Your task to perform on an android device: Turn off the flashlight Image 0: 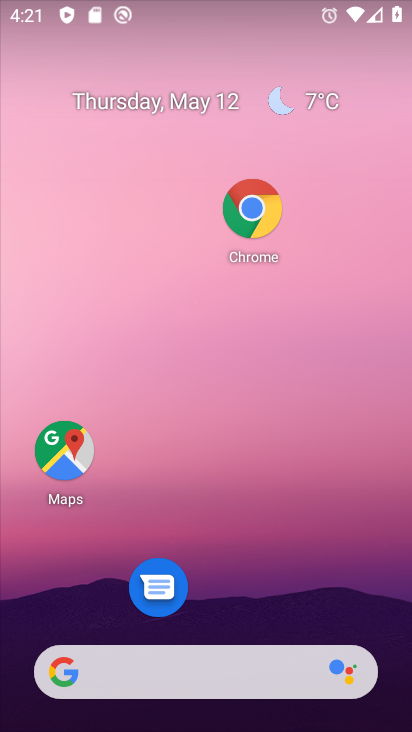
Step 0: drag from (238, 617) to (260, 103)
Your task to perform on an android device: Turn off the flashlight Image 1: 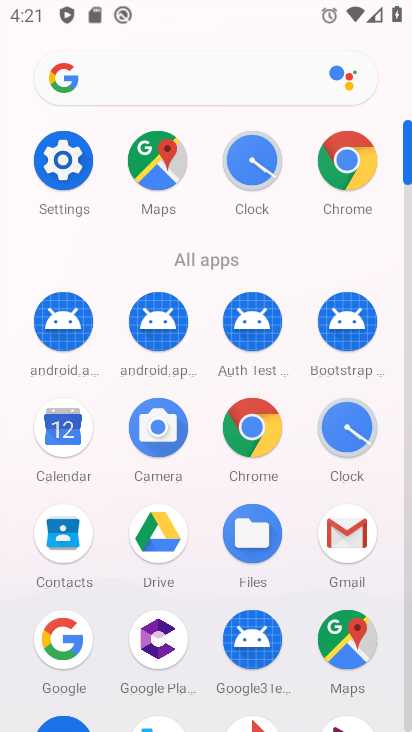
Step 1: click (60, 167)
Your task to perform on an android device: Turn off the flashlight Image 2: 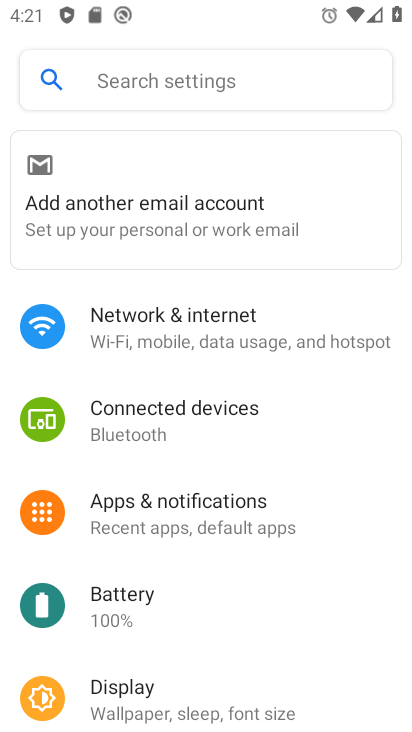
Step 2: task complete